Your task to perform on an android device: Open the calendar app, open the side menu, and click the "Day" option Image 0: 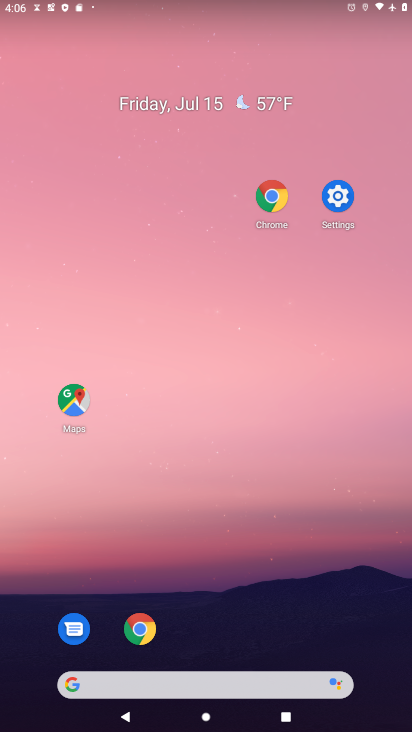
Step 0: drag from (264, 580) to (216, 147)
Your task to perform on an android device: Open the calendar app, open the side menu, and click the "Day" option Image 1: 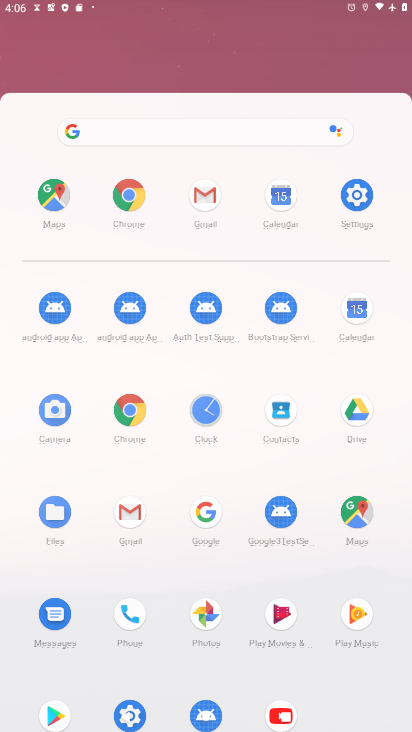
Step 1: drag from (213, 449) to (203, 53)
Your task to perform on an android device: Open the calendar app, open the side menu, and click the "Day" option Image 2: 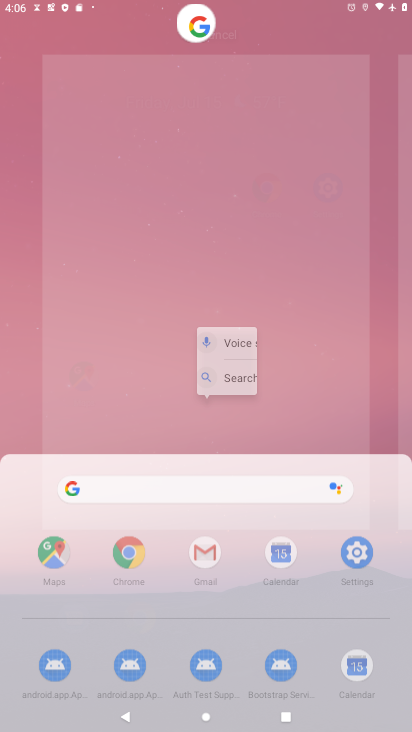
Step 2: click (185, 475)
Your task to perform on an android device: Open the calendar app, open the side menu, and click the "Day" option Image 3: 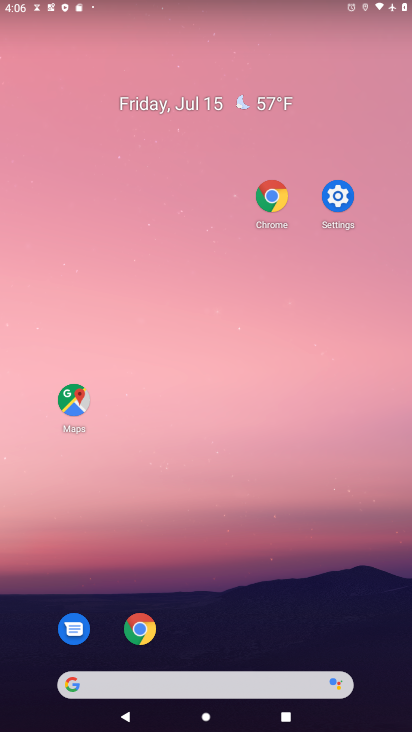
Step 3: drag from (235, 562) to (183, 12)
Your task to perform on an android device: Open the calendar app, open the side menu, and click the "Day" option Image 4: 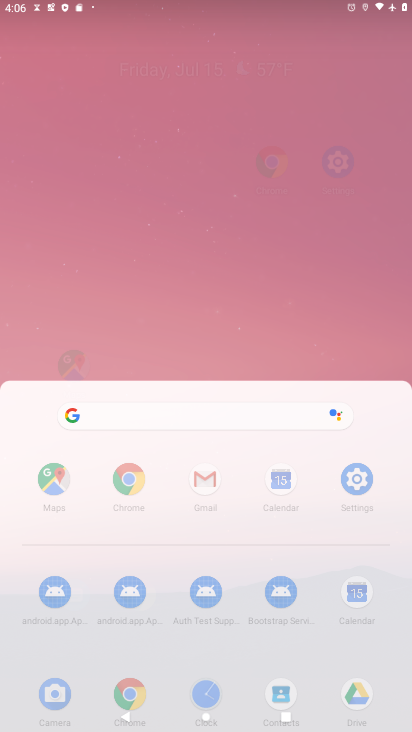
Step 4: drag from (214, 433) to (214, 11)
Your task to perform on an android device: Open the calendar app, open the side menu, and click the "Day" option Image 5: 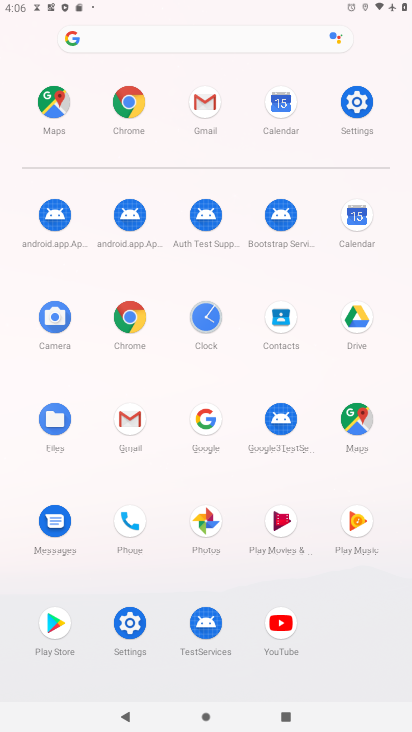
Step 5: drag from (225, 463) to (221, 205)
Your task to perform on an android device: Open the calendar app, open the side menu, and click the "Day" option Image 6: 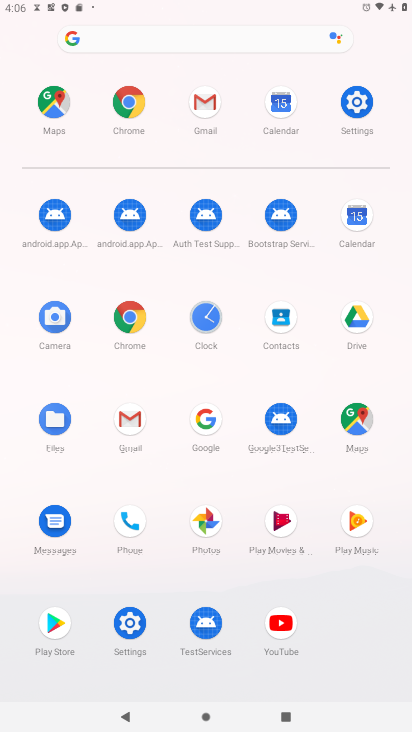
Step 6: click (359, 227)
Your task to perform on an android device: Open the calendar app, open the side menu, and click the "Day" option Image 7: 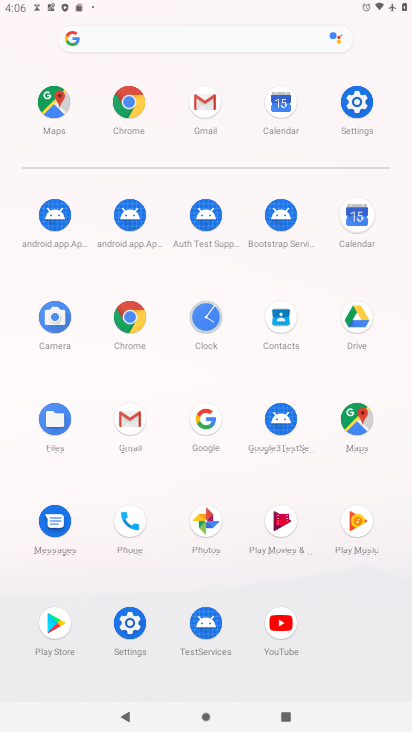
Step 7: click (358, 226)
Your task to perform on an android device: Open the calendar app, open the side menu, and click the "Day" option Image 8: 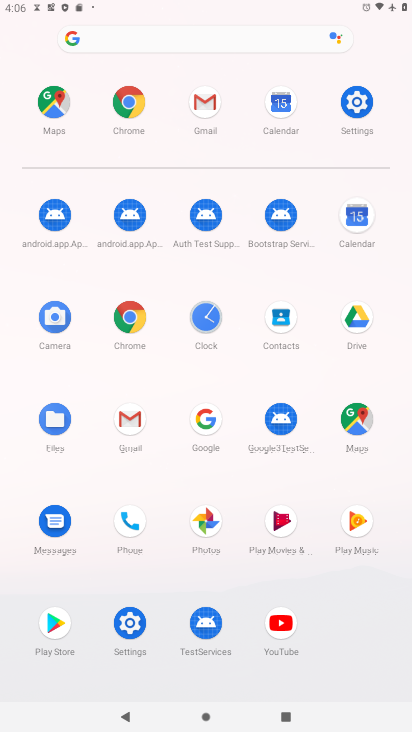
Step 8: click (358, 226)
Your task to perform on an android device: Open the calendar app, open the side menu, and click the "Day" option Image 9: 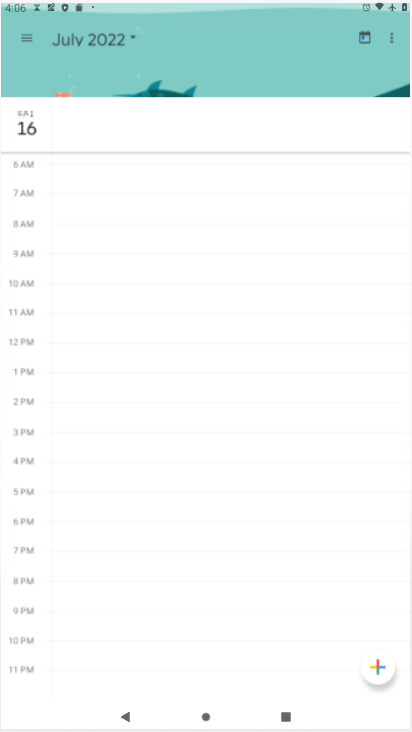
Step 9: click (358, 226)
Your task to perform on an android device: Open the calendar app, open the side menu, and click the "Day" option Image 10: 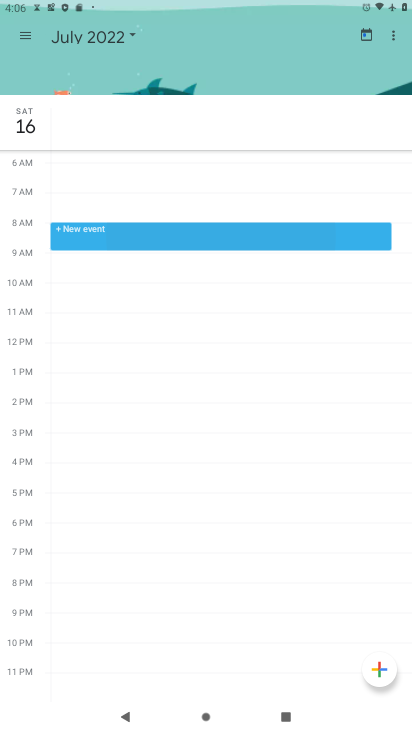
Step 10: click (359, 224)
Your task to perform on an android device: Open the calendar app, open the side menu, and click the "Day" option Image 11: 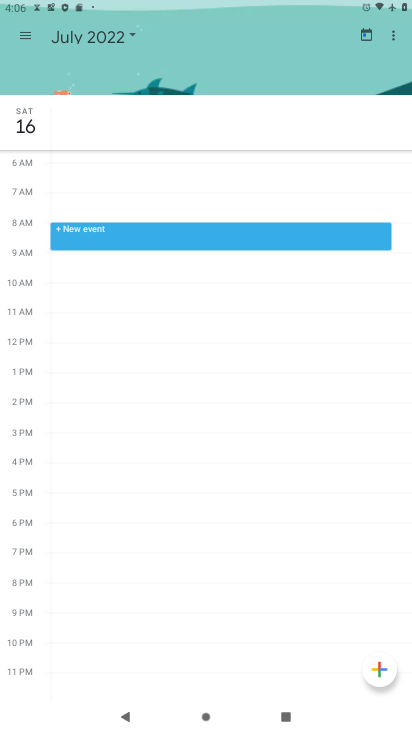
Step 11: click (358, 223)
Your task to perform on an android device: Open the calendar app, open the side menu, and click the "Day" option Image 12: 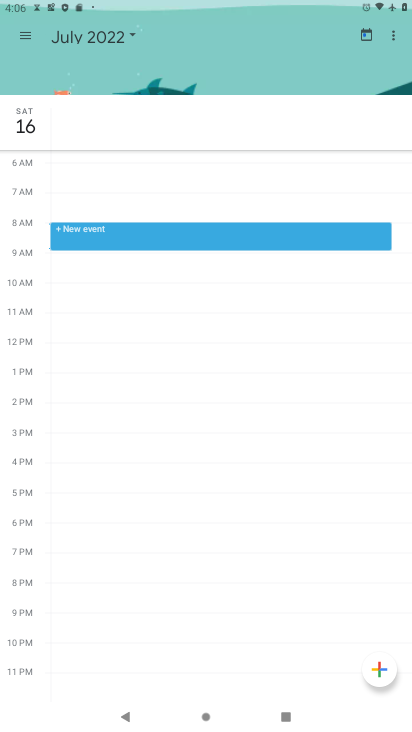
Step 12: click (16, 22)
Your task to perform on an android device: Open the calendar app, open the side menu, and click the "Day" option Image 13: 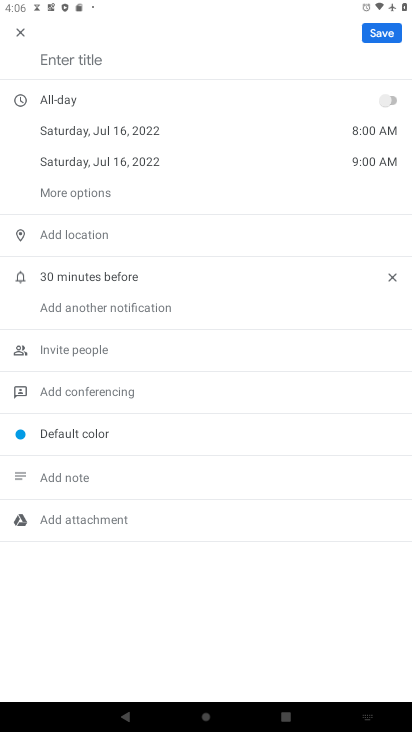
Step 13: click (19, 31)
Your task to perform on an android device: Open the calendar app, open the side menu, and click the "Day" option Image 14: 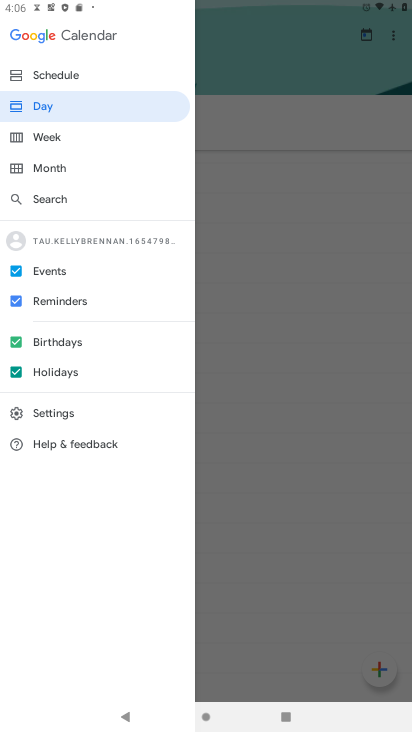
Step 14: click (20, 32)
Your task to perform on an android device: Open the calendar app, open the side menu, and click the "Day" option Image 15: 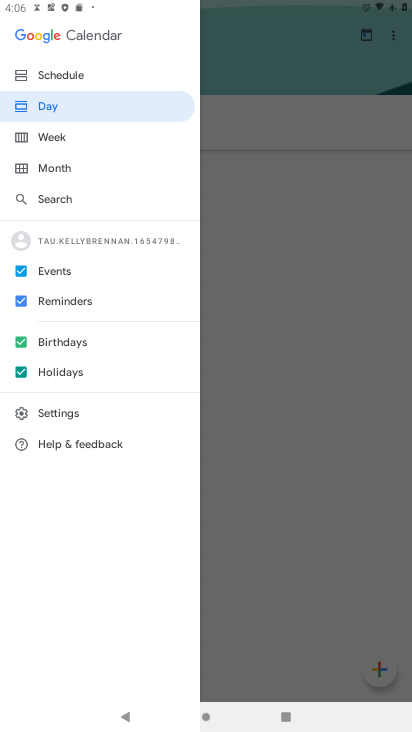
Step 15: click (41, 112)
Your task to perform on an android device: Open the calendar app, open the side menu, and click the "Day" option Image 16: 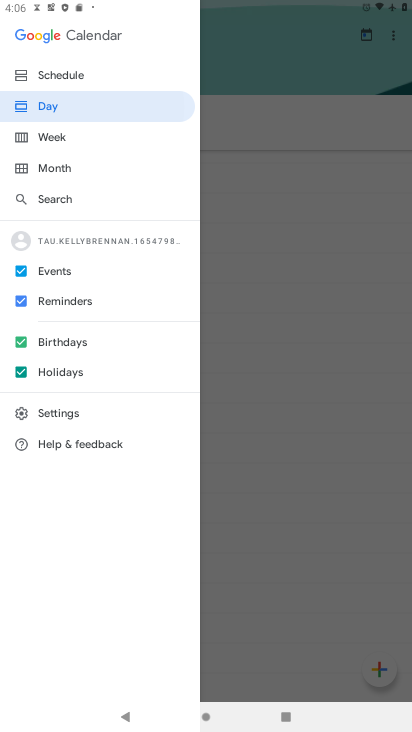
Step 16: click (41, 112)
Your task to perform on an android device: Open the calendar app, open the side menu, and click the "Day" option Image 17: 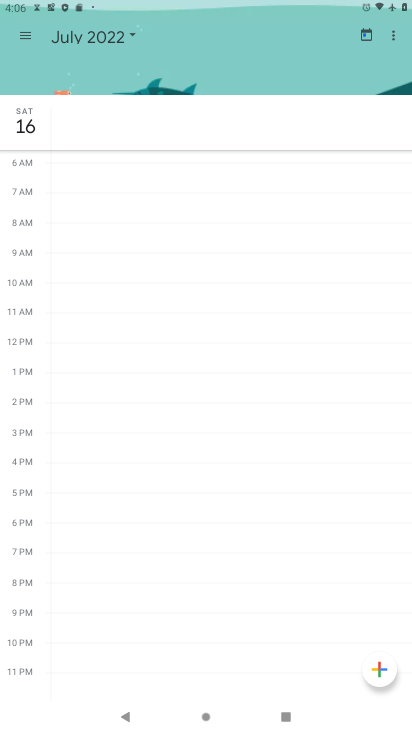
Step 17: task complete